Your task to perform on an android device: Open the map Image 0: 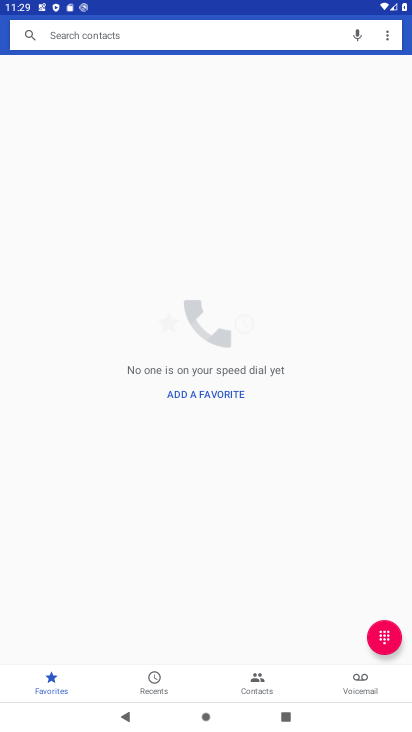
Step 0: press home button
Your task to perform on an android device: Open the map Image 1: 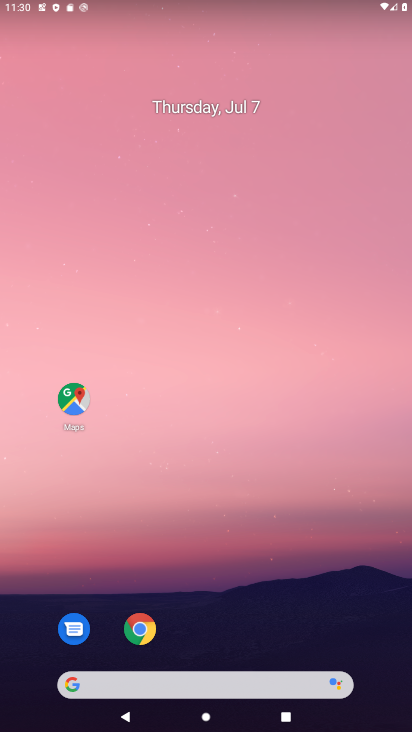
Step 1: click (73, 401)
Your task to perform on an android device: Open the map Image 2: 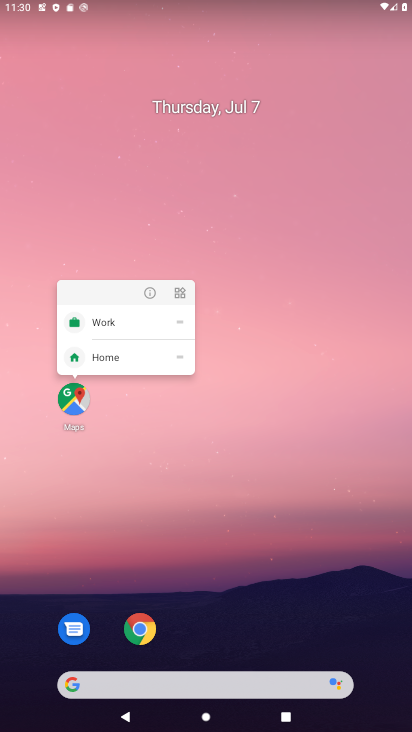
Step 2: click (76, 399)
Your task to perform on an android device: Open the map Image 3: 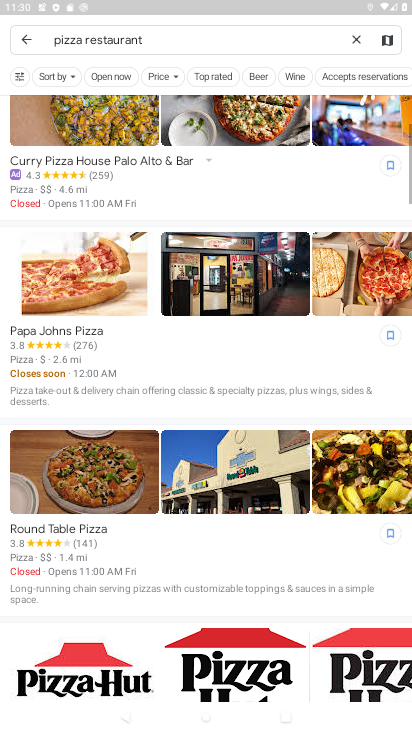
Step 3: click (352, 35)
Your task to perform on an android device: Open the map Image 4: 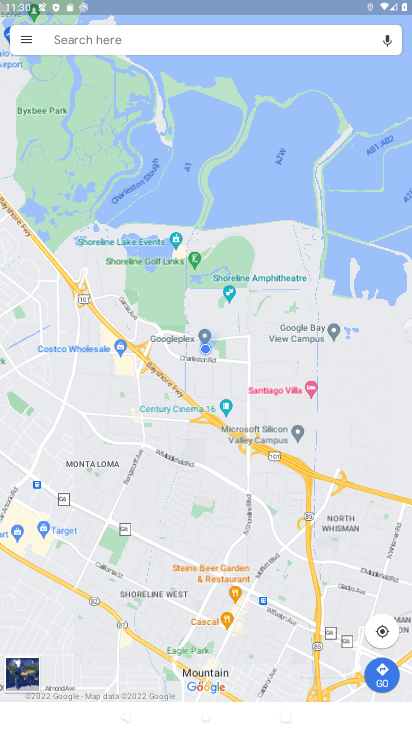
Step 4: task complete